Your task to perform on an android device: Add macbook air to the cart on ebay.com, then select checkout. Image 0: 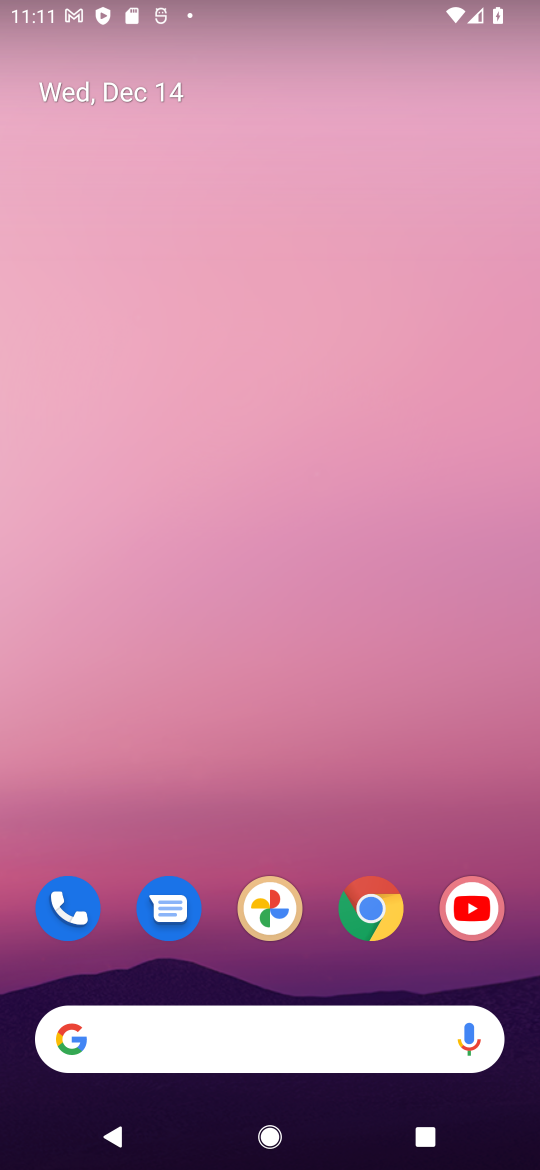
Step 0: click (372, 915)
Your task to perform on an android device: Add macbook air to the cart on ebay.com, then select checkout. Image 1: 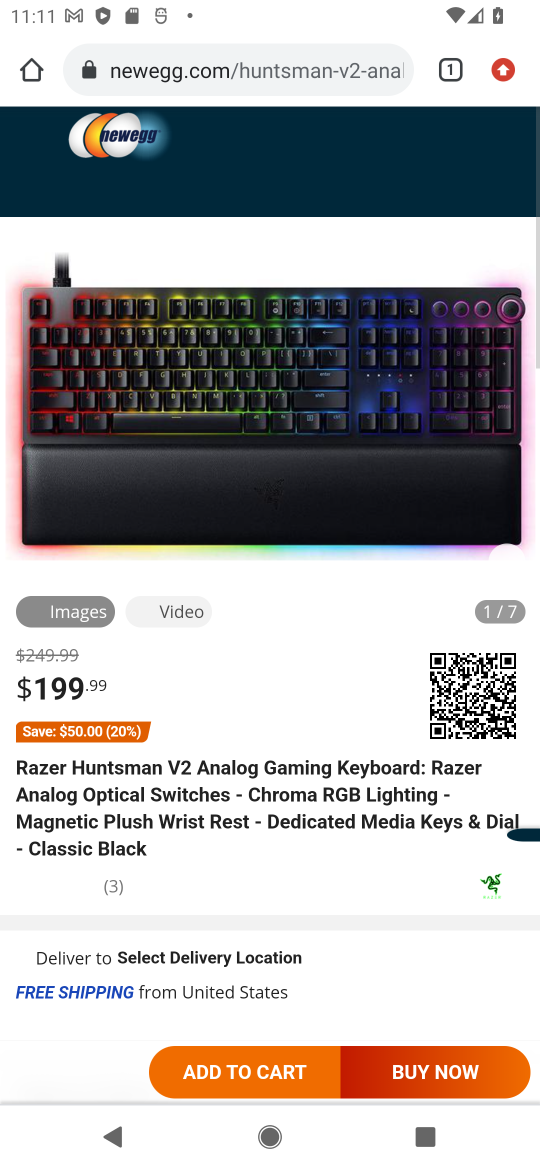
Step 1: click (196, 73)
Your task to perform on an android device: Add macbook air to the cart on ebay.com, then select checkout. Image 2: 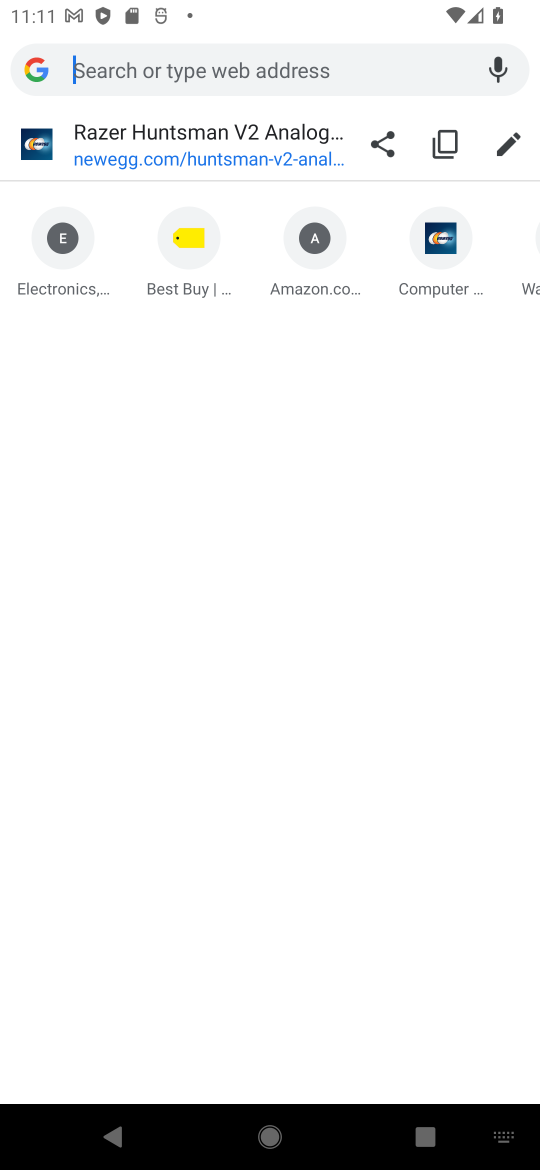
Step 2: type "ebay.com"
Your task to perform on an android device: Add macbook air to the cart on ebay.com, then select checkout. Image 3: 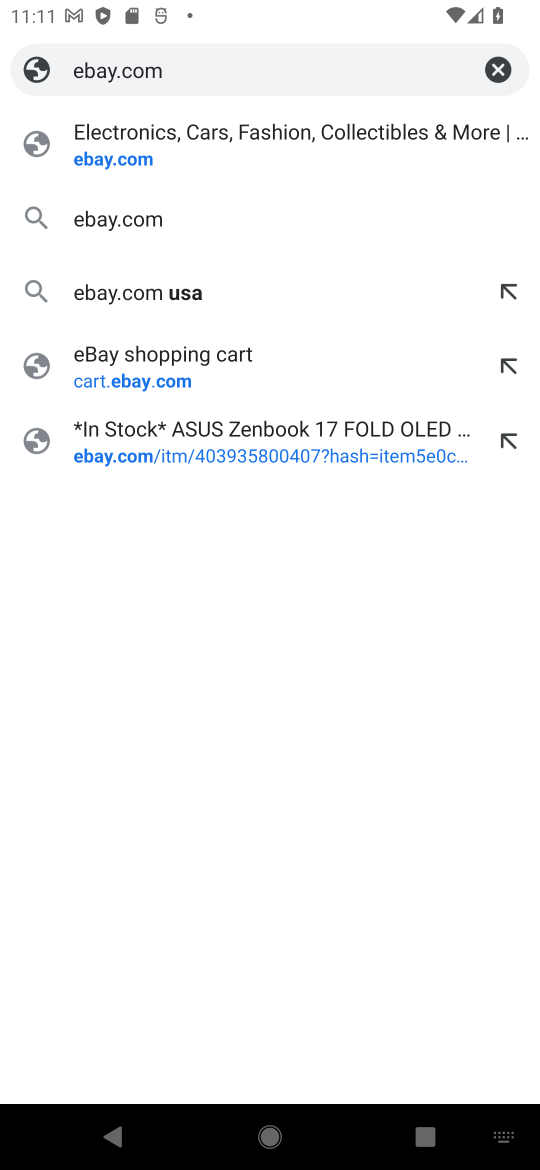
Step 3: click (124, 172)
Your task to perform on an android device: Add macbook air to the cart on ebay.com, then select checkout. Image 4: 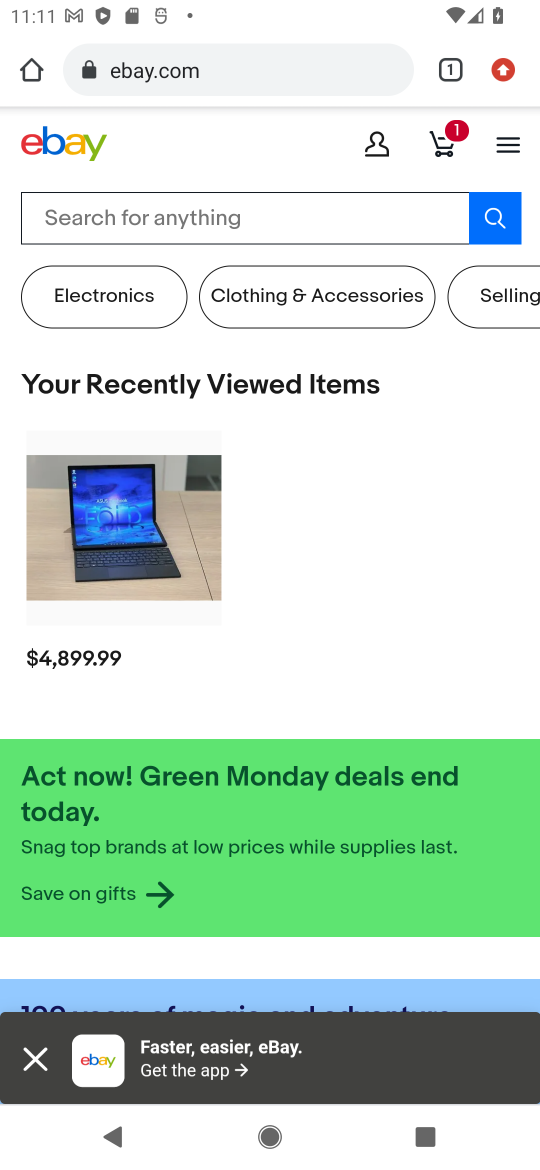
Step 4: click (156, 215)
Your task to perform on an android device: Add macbook air to the cart on ebay.com, then select checkout. Image 5: 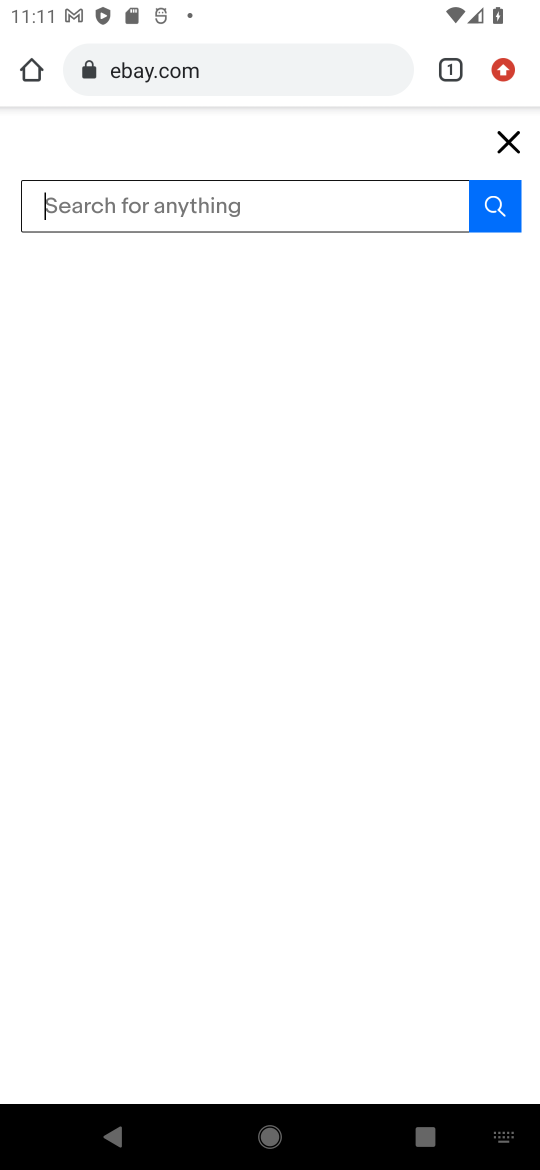
Step 5: type "macbook air"
Your task to perform on an android device: Add macbook air to the cart on ebay.com, then select checkout. Image 6: 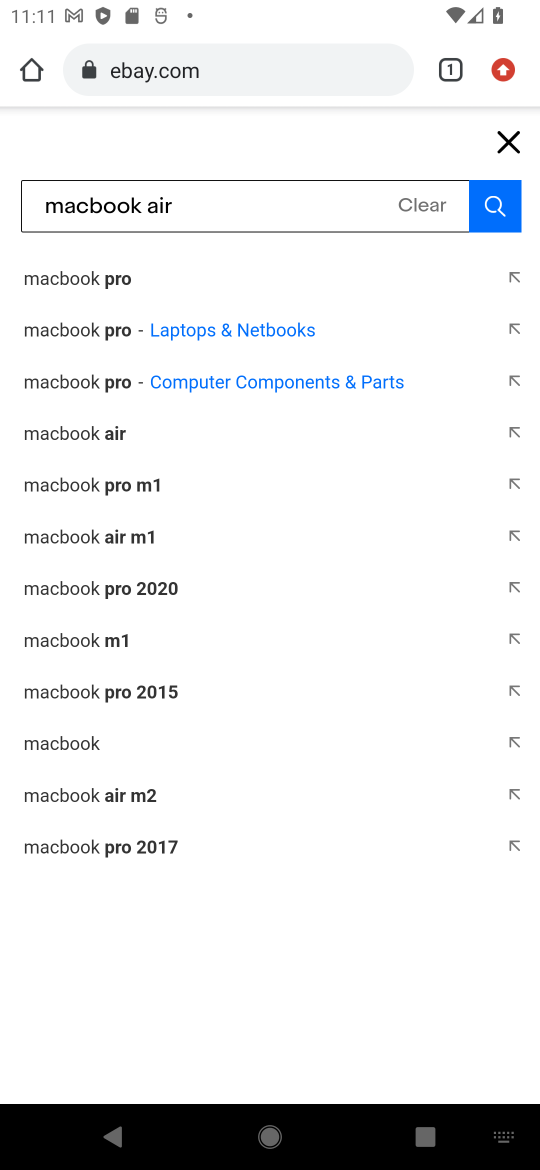
Step 6: click (64, 435)
Your task to perform on an android device: Add macbook air to the cart on ebay.com, then select checkout. Image 7: 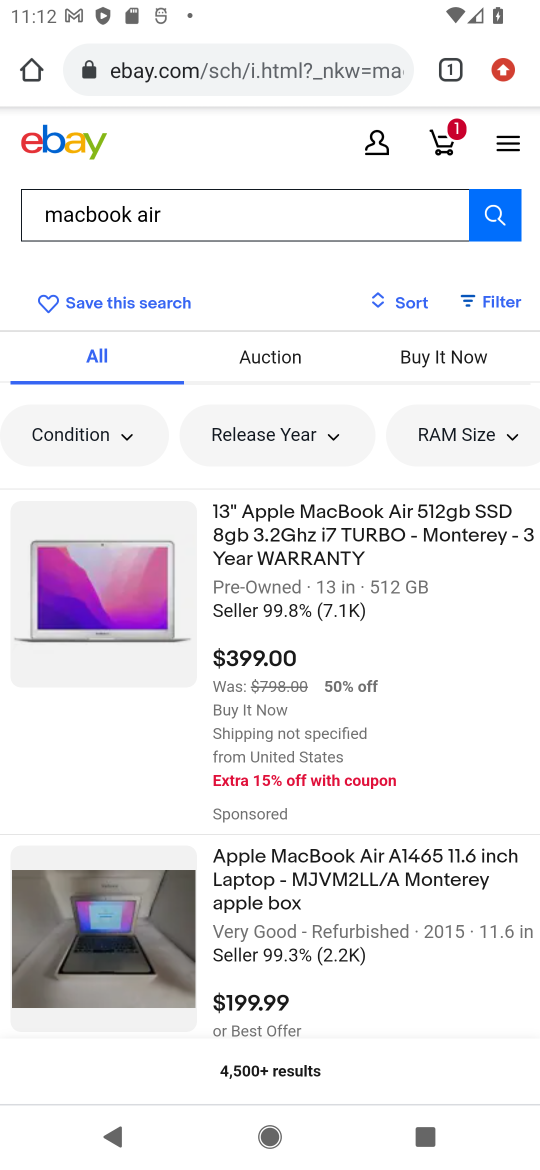
Step 7: click (276, 568)
Your task to perform on an android device: Add macbook air to the cart on ebay.com, then select checkout. Image 8: 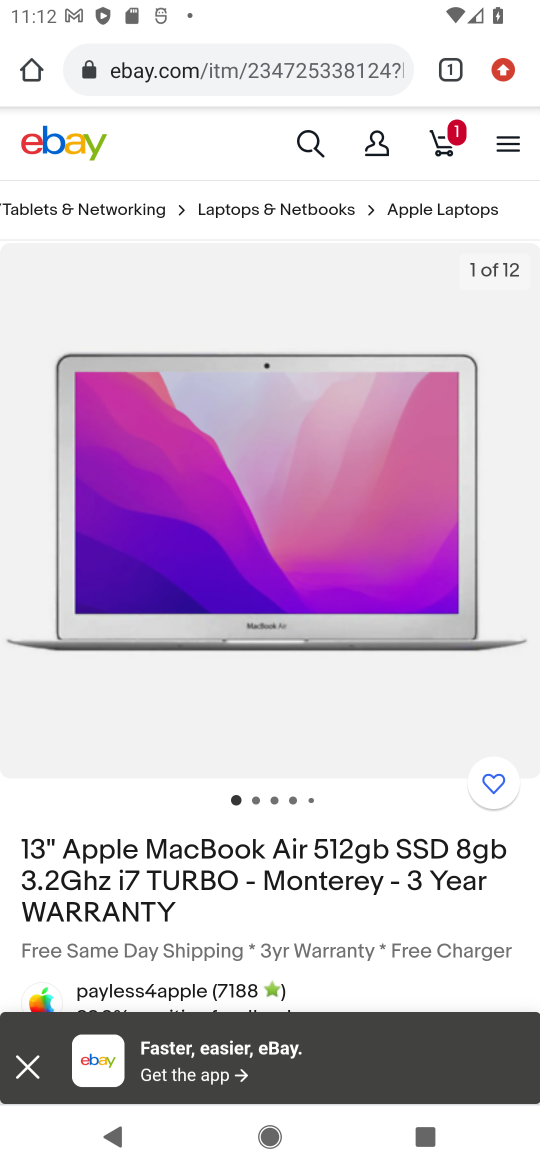
Step 8: drag from (287, 730) to (265, 463)
Your task to perform on an android device: Add macbook air to the cart on ebay.com, then select checkout. Image 9: 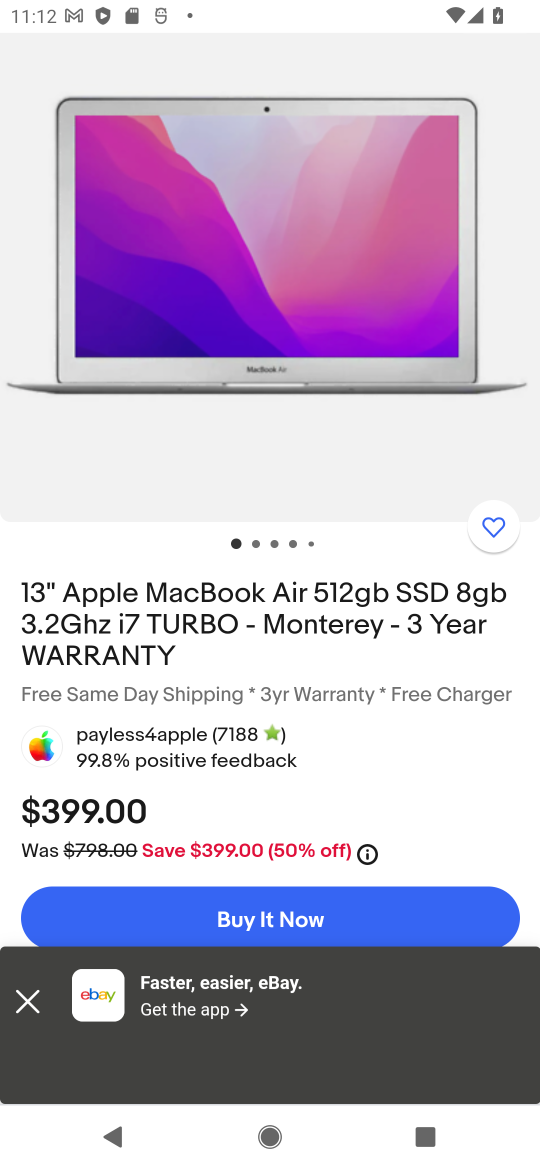
Step 9: drag from (268, 791) to (253, 453)
Your task to perform on an android device: Add macbook air to the cart on ebay.com, then select checkout. Image 10: 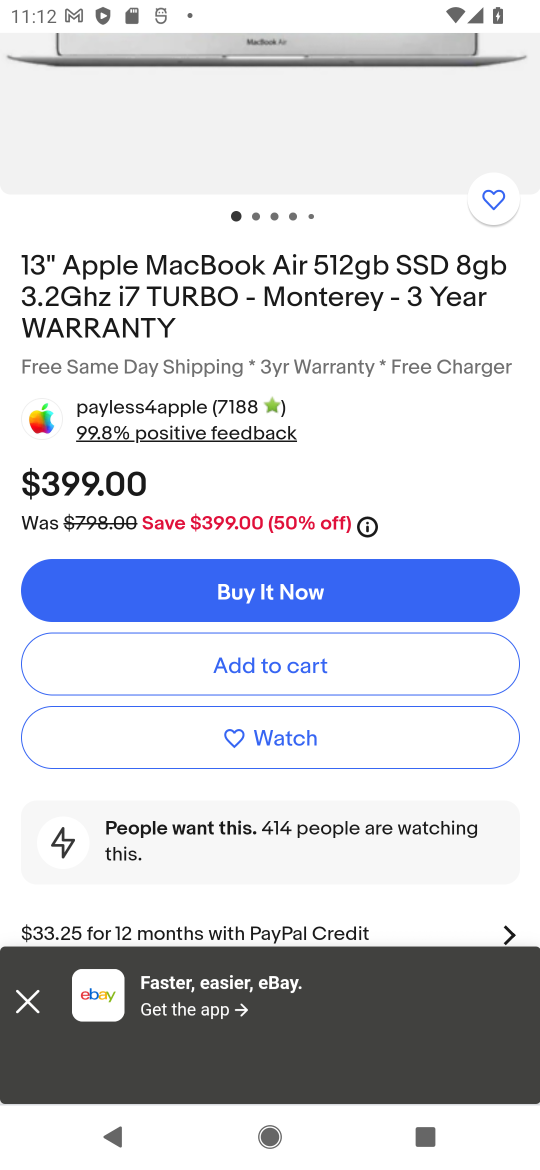
Step 10: click (232, 665)
Your task to perform on an android device: Add macbook air to the cart on ebay.com, then select checkout. Image 11: 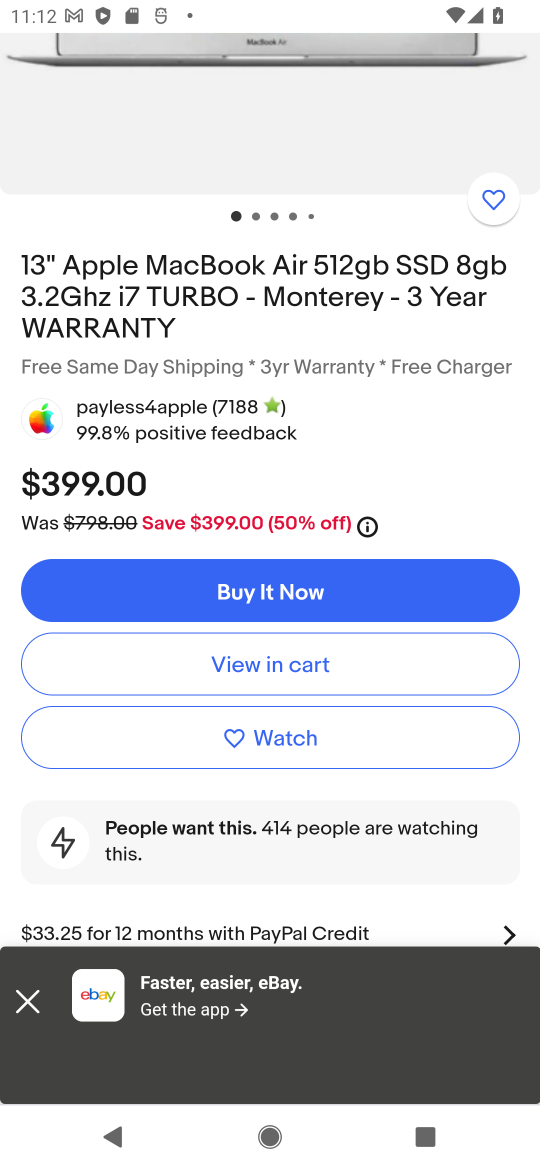
Step 11: click (232, 665)
Your task to perform on an android device: Add macbook air to the cart on ebay.com, then select checkout. Image 12: 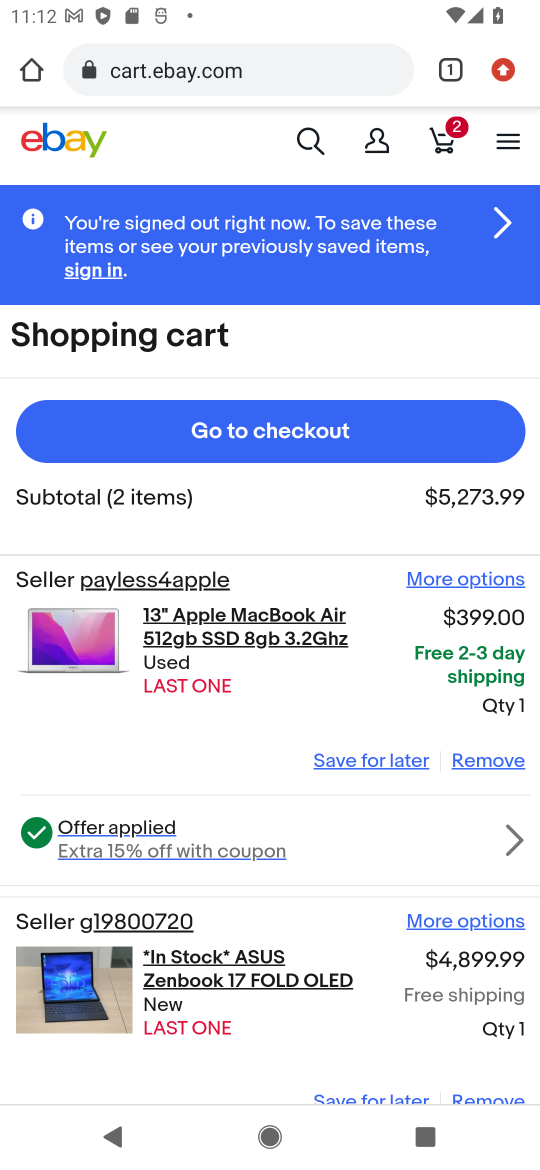
Step 12: click (307, 433)
Your task to perform on an android device: Add macbook air to the cart on ebay.com, then select checkout. Image 13: 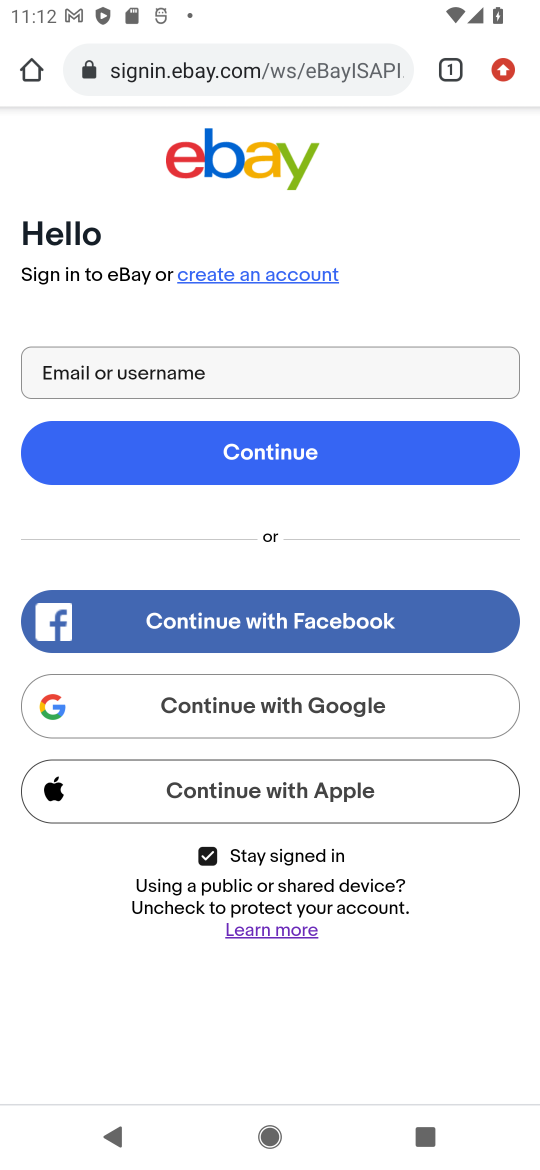
Step 13: task complete